Your task to perform on an android device: open app "LiveIn - Share Your Moment" Image 0: 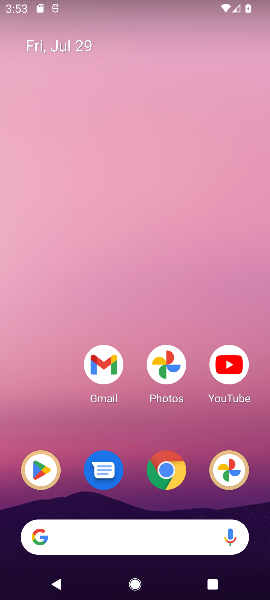
Step 0: click (58, 469)
Your task to perform on an android device: open app "LiveIn - Share Your Moment" Image 1: 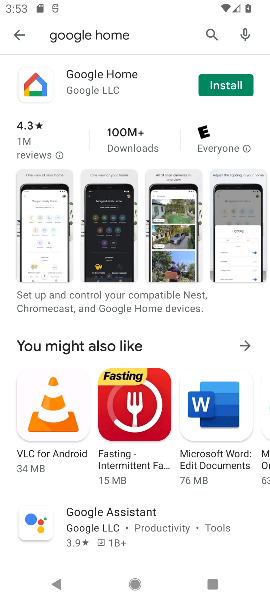
Step 1: click (202, 35)
Your task to perform on an android device: open app "LiveIn - Share Your Moment" Image 2: 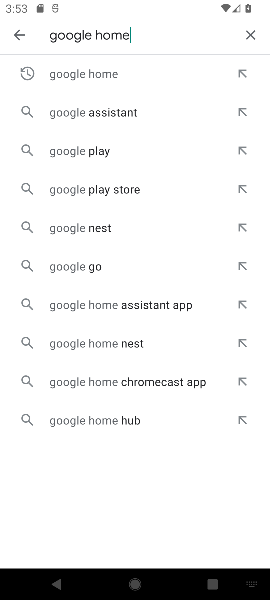
Step 2: click (263, 32)
Your task to perform on an android device: open app "LiveIn - Share Your Moment" Image 3: 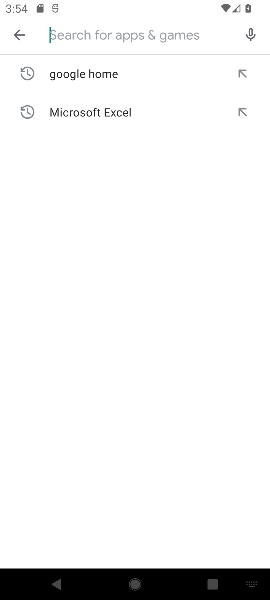
Step 3: type "LiveIn - Share Your Moment"
Your task to perform on an android device: open app "LiveIn - Share Your Moment" Image 4: 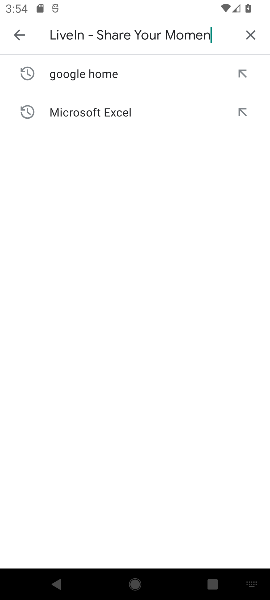
Step 4: type ""
Your task to perform on an android device: open app "LiveIn - Share Your Moment" Image 5: 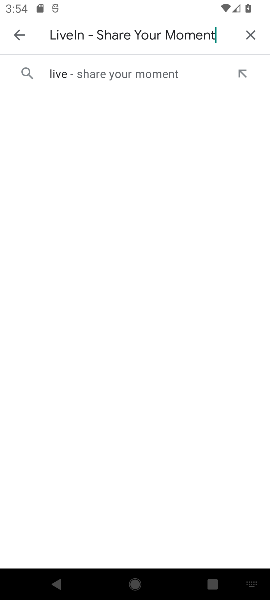
Step 5: click (41, 65)
Your task to perform on an android device: open app "LiveIn - Share Your Moment" Image 6: 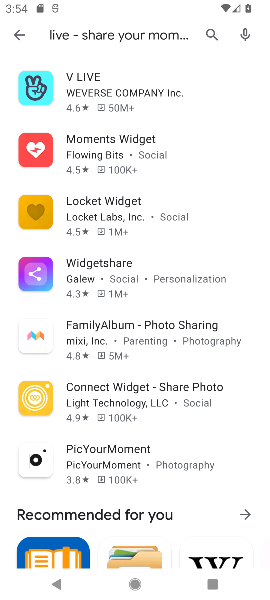
Step 6: task complete